Your task to perform on an android device: open a bookmark in the chrome app Image 0: 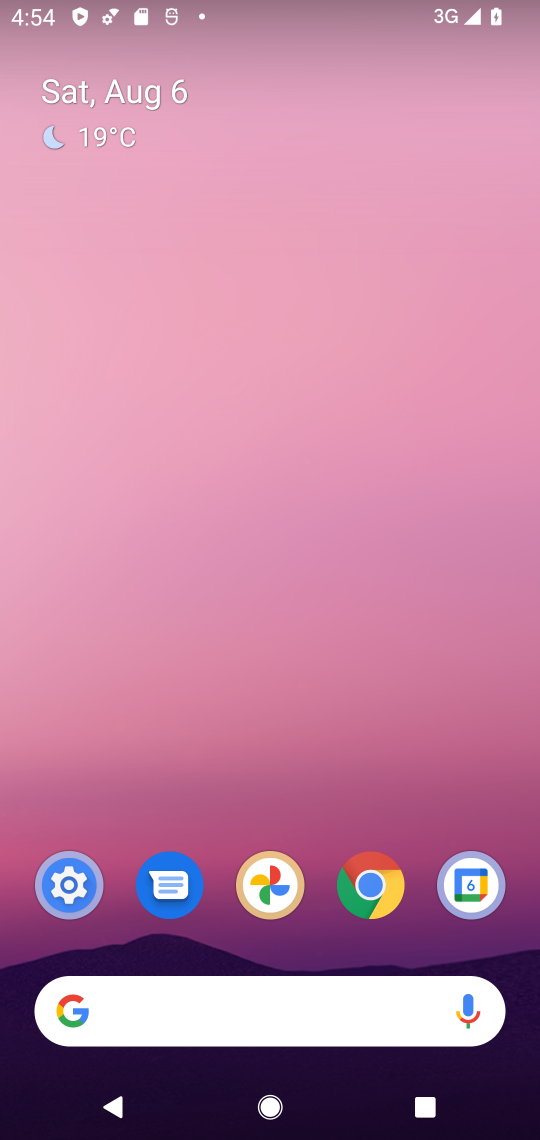
Step 0: drag from (411, 748) to (230, 25)
Your task to perform on an android device: open a bookmark in the chrome app Image 1: 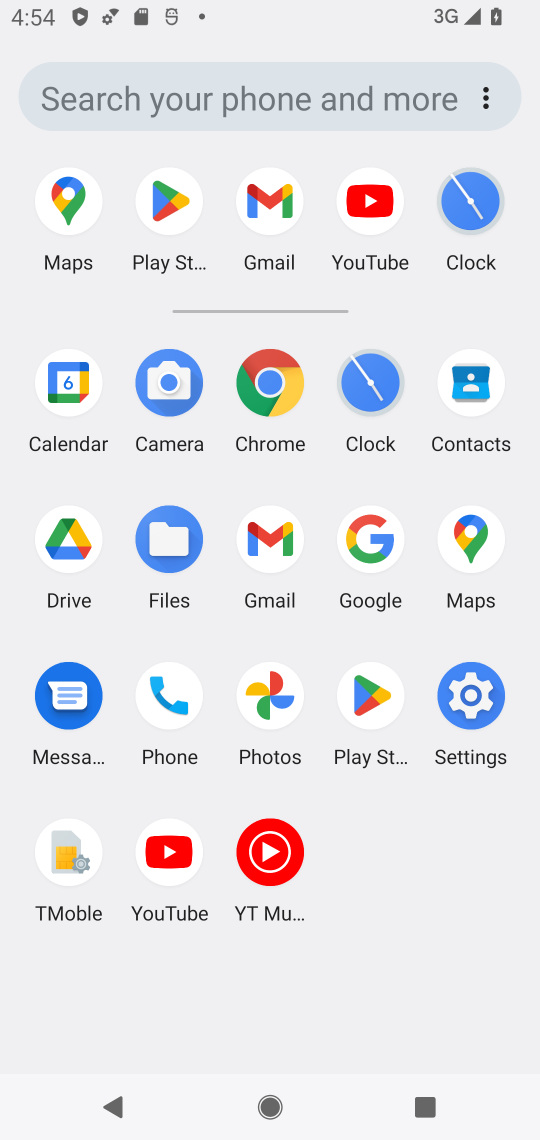
Step 1: click (256, 402)
Your task to perform on an android device: open a bookmark in the chrome app Image 2: 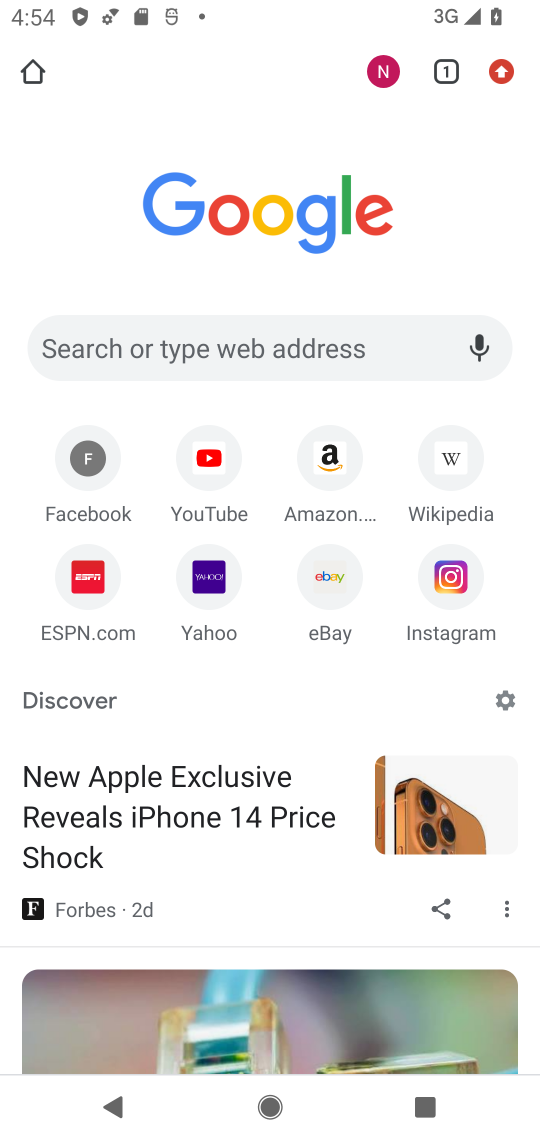
Step 2: click (510, 67)
Your task to perform on an android device: open a bookmark in the chrome app Image 3: 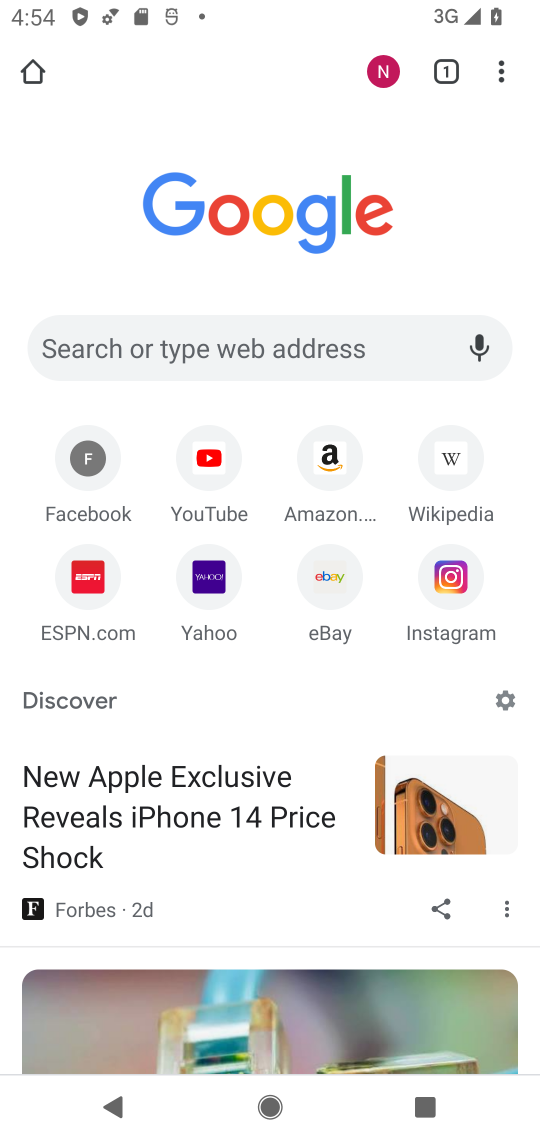
Step 3: click (510, 67)
Your task to perform on an android device: open a bookmark in the chrome app Image 4: 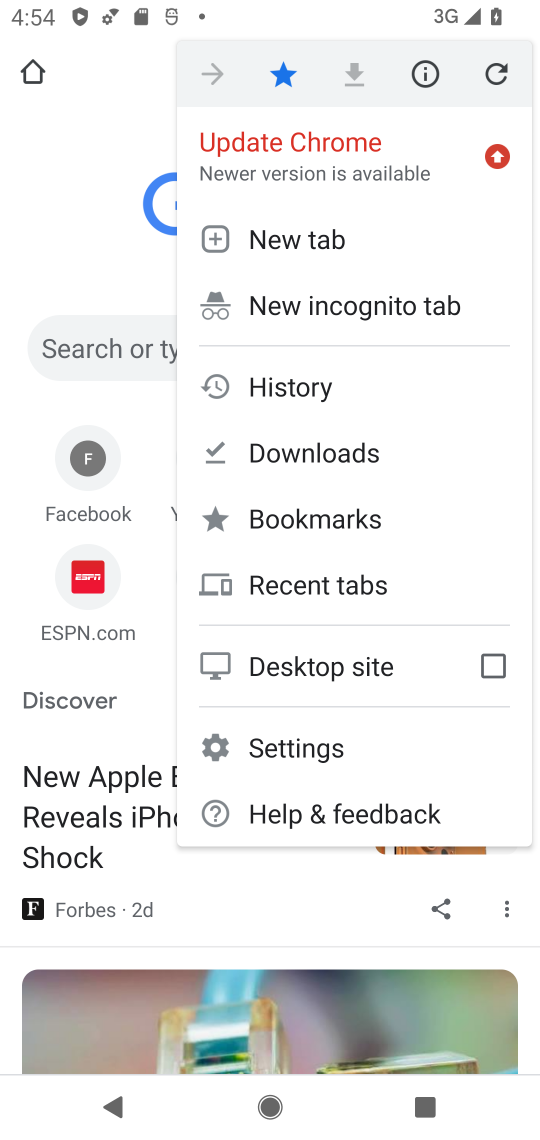
Step 4: click (295, 531)
Your task to perform on an android device: open a bookmark in the chrome app Image 5: 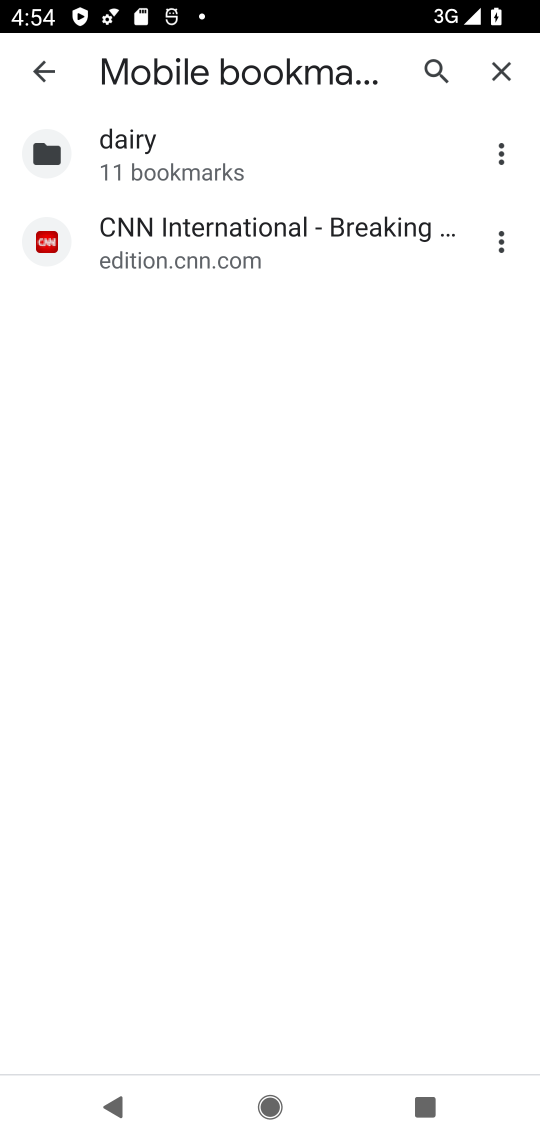
Step 5: task complete